Your task to perform on an android device: Open ESPN.com Image 0: 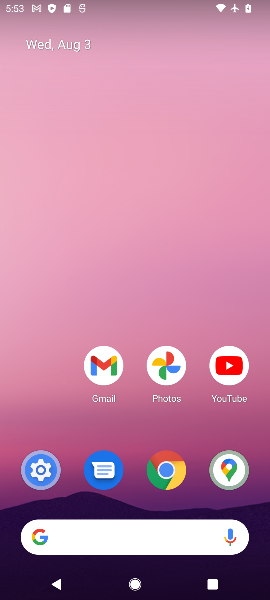
Step 0: drag from (54, 384) to (159, 83)
Your task to perform on an android device: Open ESPN.com Image 1: 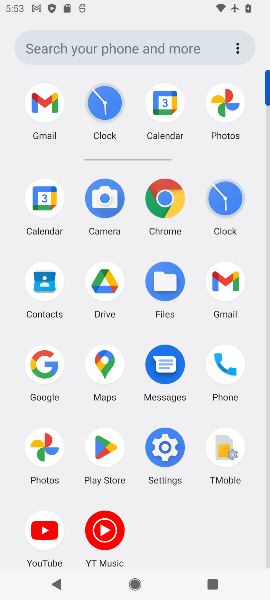
Step 1: click (159, 199)
Your task to perform on an android device: Open ESPN.com Image 2: 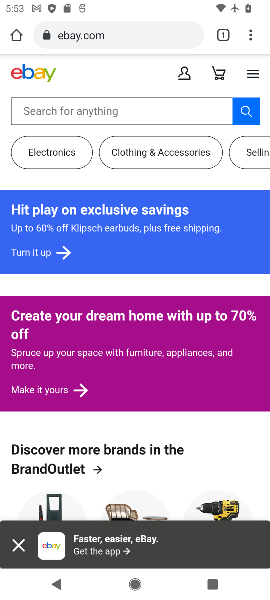
Step 2: click (116, 42)
Your task to perform on an android device: Open ESPN.com Image 3: 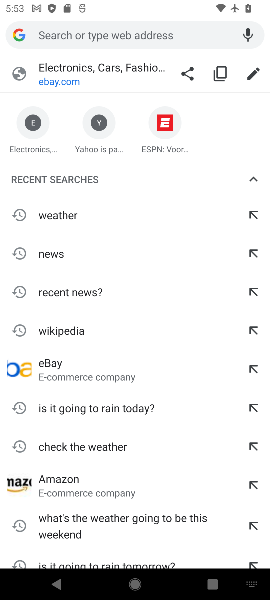
Step 3: type "espn.com"
Your task to perform on an android device: Open ESPN.com Image 4: 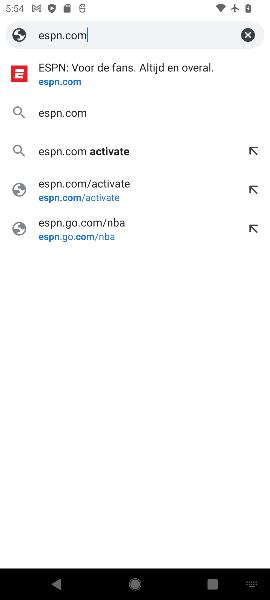
Step 4: click (67, 81)
Your task to perform on an android device: Open ESPN.com Image 5: 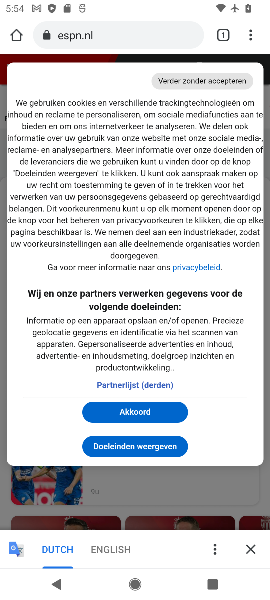
Step 5: task complete